Your task to perform on an android device: turn on data saver in the chrome app Image 0: 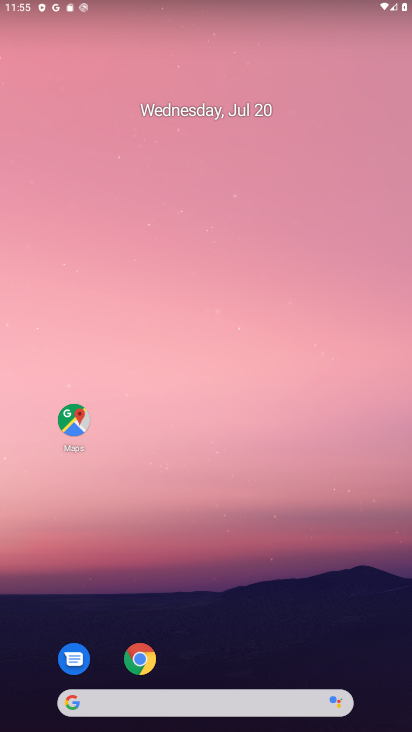
Step 0: click (149, 659)
Your task to perform on an android device: turn on data saver in the chrome app Image 1: 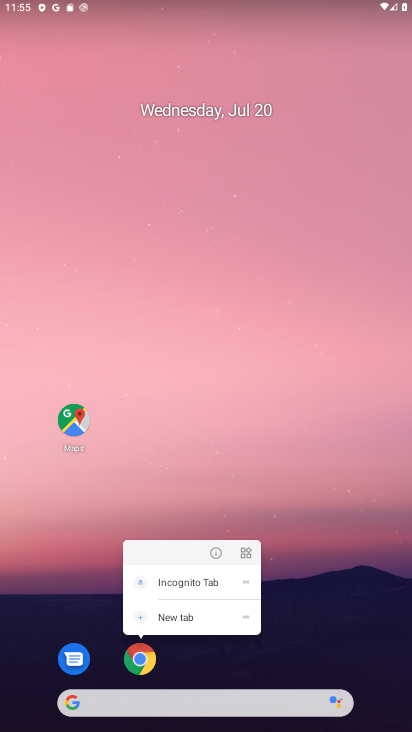
Step 1: click (136, 663)
Your task to perform on an android device: turn on data saver in the chrome app Image 2: 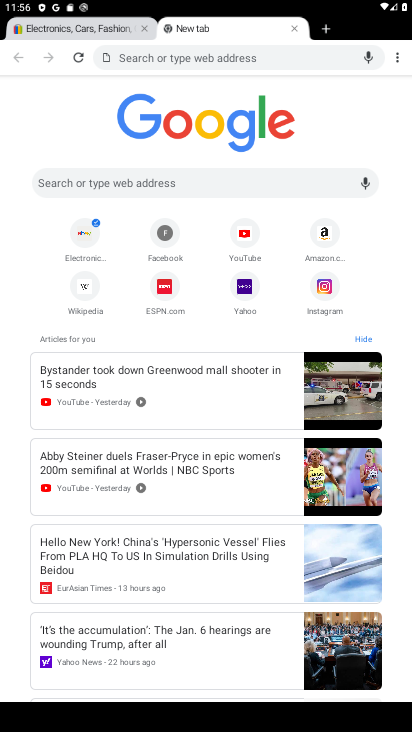
Step 2: click (393, 62)
Your task to perform on an android device: turn on data saver in the chrome app Image 3: 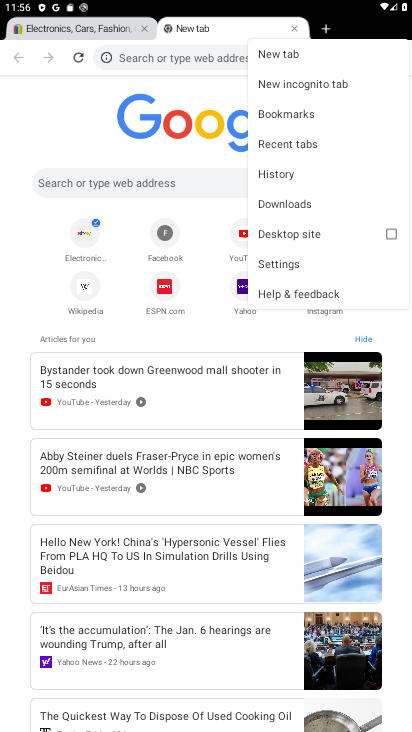
Step 3: click (287, 263)
Your task to perform on an android device: turn on data saver in the chrome app Image 4: 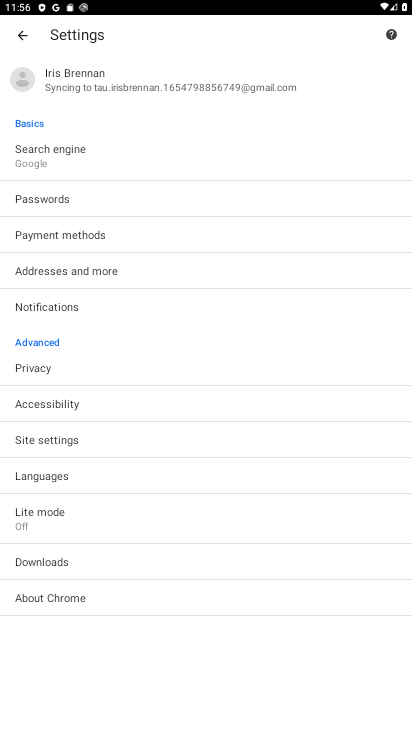
Step 4: click (61, 514)
Your task to perform on an android device: turn on data saver in the chrome app Image 5: 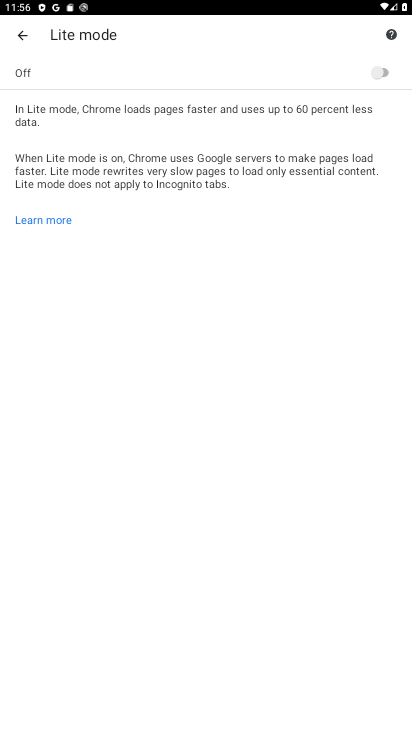
Step 5: click (382, 66)
Your task to perform on an android device: turn on data saver in the chrome app Image 6: 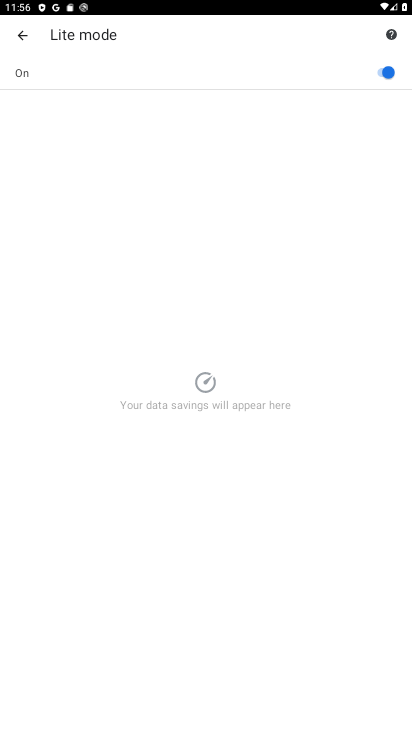
Step 6: task complete